Your task to perform on an android device: change the clock display to show seconds Image 0: 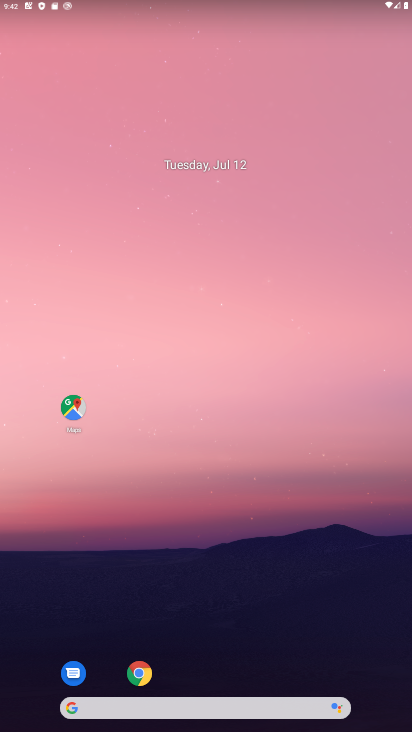
Step 0: drag from (172, 502) to (172, 161)
Your task to perform on an android device: change the clock display to show seconds Image 1: 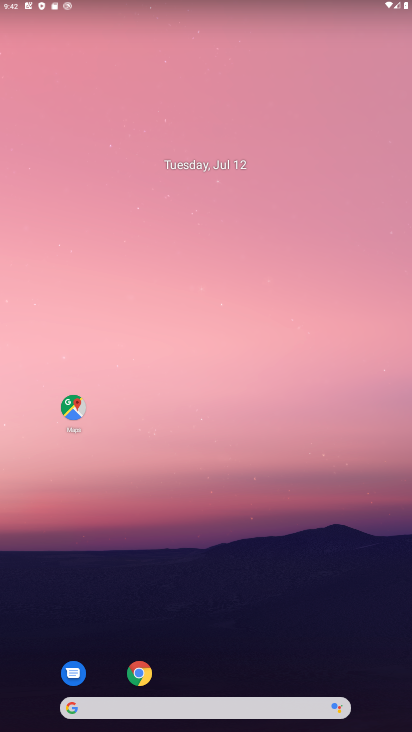
Step 1: drag from (182, 647) to (215, 274)
Your task to perform on an android device: change the clock display to show seconds Image 2: 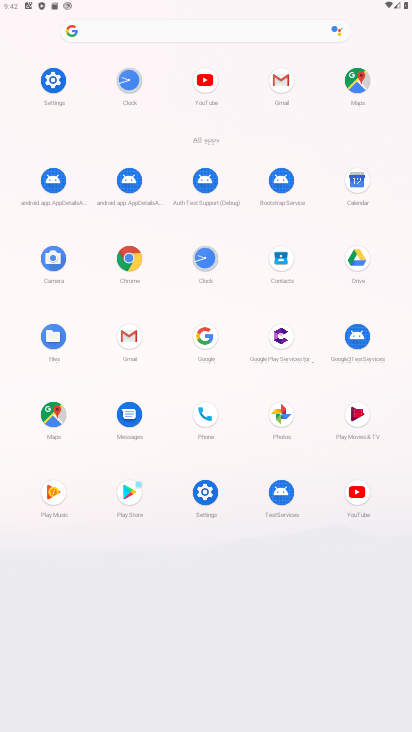
Step 2: click (204, 265)
Your task to perform on an android device: change the clock display to show seconds Image 3: 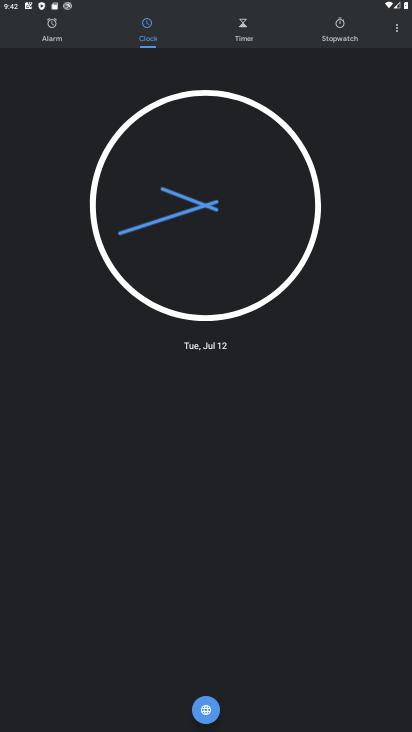
Step 3: click (397, 31)
Your task to perform on an android device: change the clock display to show seconds Image 4: 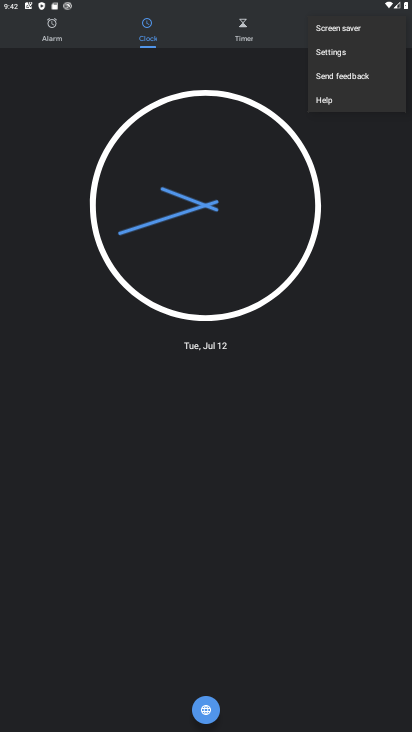
Step 4: click (348, 54)
Your task to perform on an android device: change the clock display to show seconds Image 5: 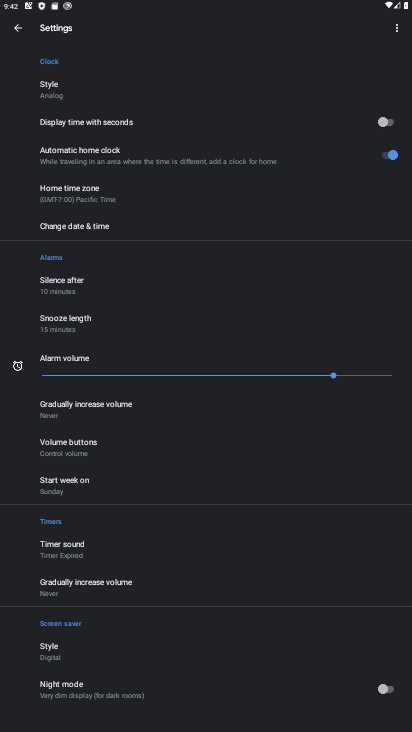
Step 5: click (394, 128)
Your task to perform on an android device: change the clock display to show seconds Image 6: 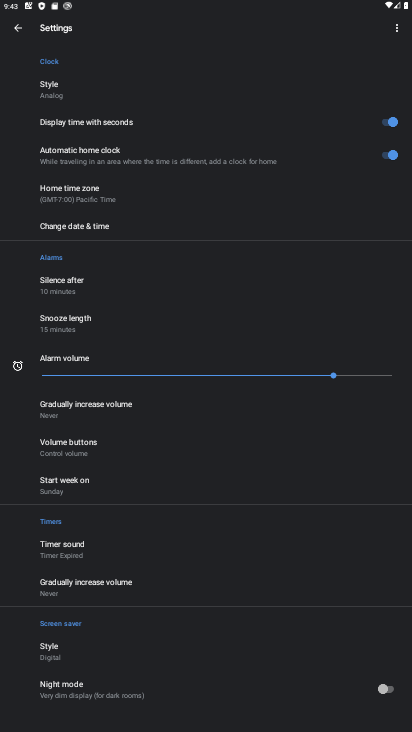
Step 6: task complete